Your task to perform on an android device: check data usage Image 0: 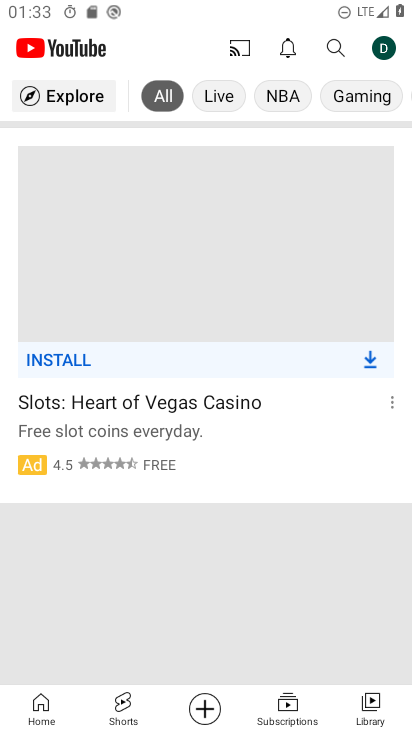
Step 0: press home button
Your task to perform on an android device: check data usage Image 1: 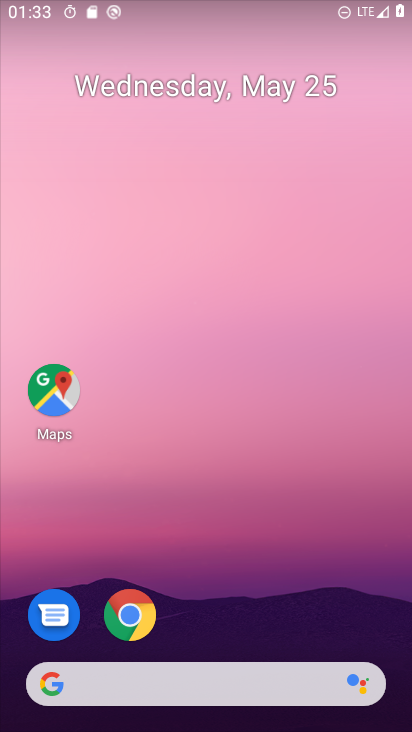
Step 1: drag from (207, 685) to (111, 93)
Your task to perform on an android device: check data usage Image 2: 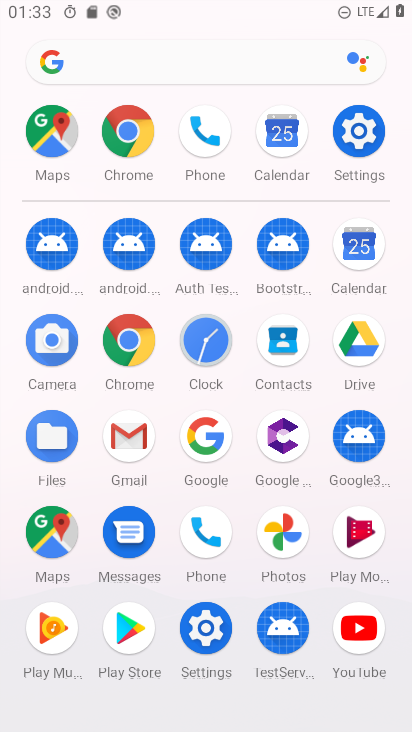
Step 2: click (344, 139)
Your task to perform on an android device: check data usage Image 3: 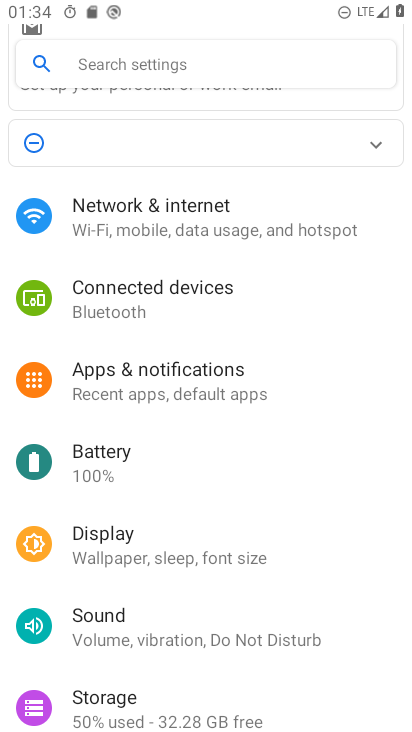
Step 3: click (135, 69)
Your task to perform on an android device: check data usage Image 4: 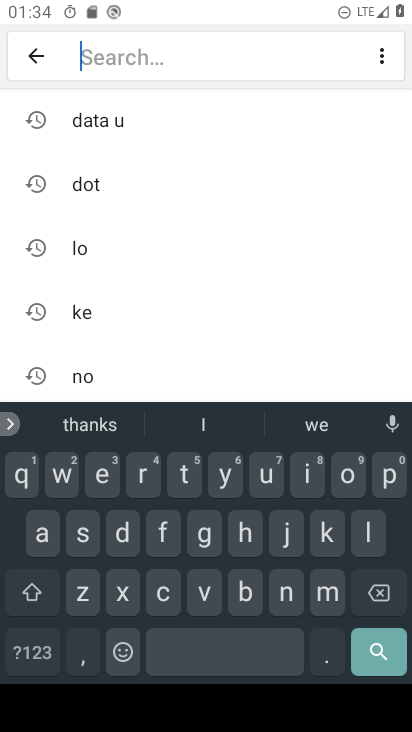
Step 4: click (119, 543)
Your task to perform on an android device: check data usage Image 5: 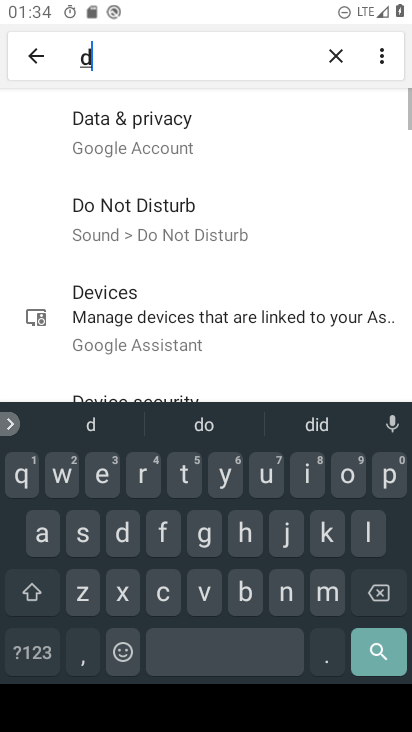
Step 5: click (341, 49)
Your task to perform on an android device: check data usage Image 6: 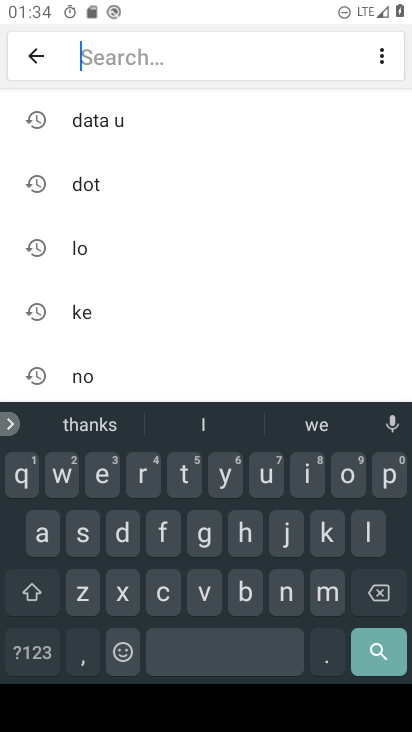
Step 6: click (121, 140)
Your task to perform on an android device: check data usage Image 7: 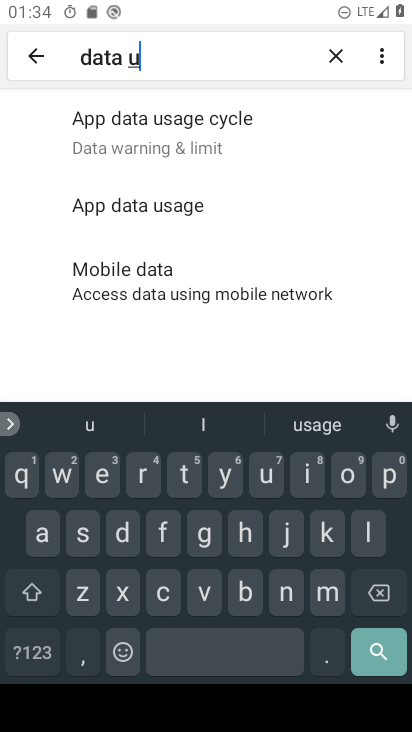
Step 7: click (141, 201)
Your task to perform on an android device: check data usage Image 8: 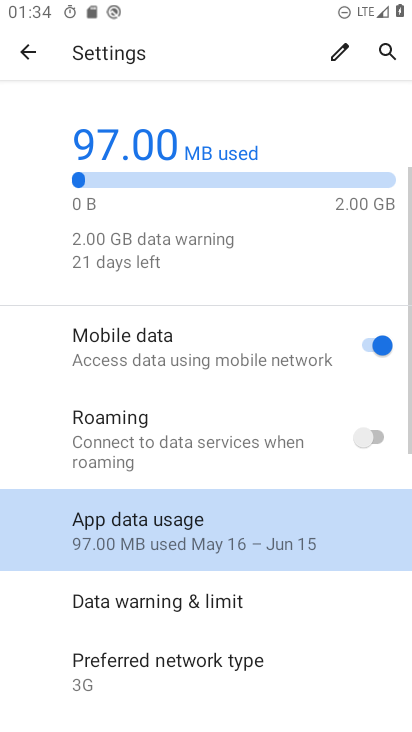
Step 8: task complete